Your task to perform on an android device: turn on improve location accuracy Image 0: 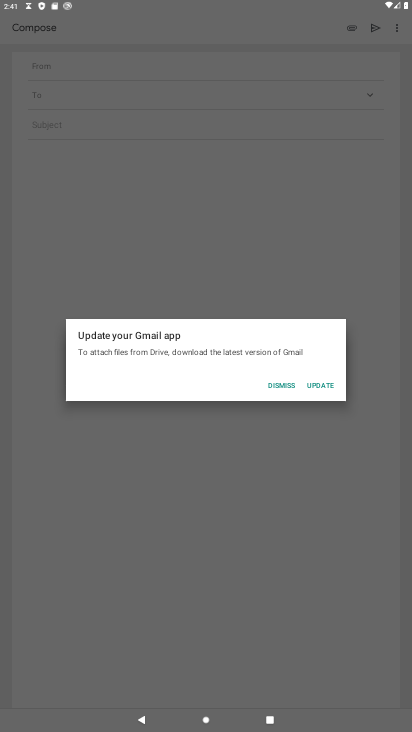
Step 0: press home button
Your task to perform on an android device: turn on improve location accuracy Image 1: 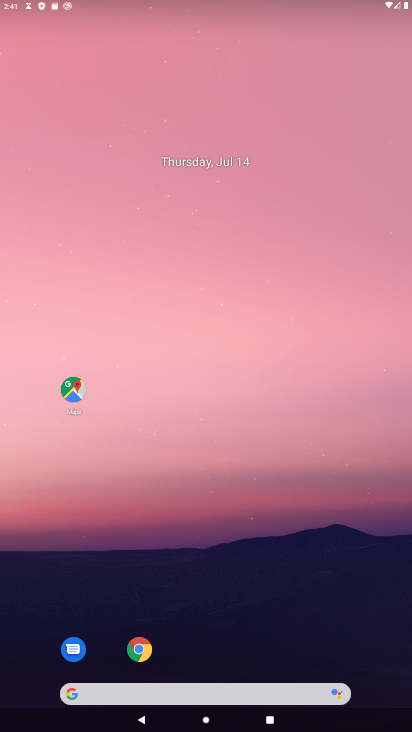
Step 1: drag from (225, 643) to (272, 33)
Your task to perform on an android device: turn on improve location accuracy Image 2: 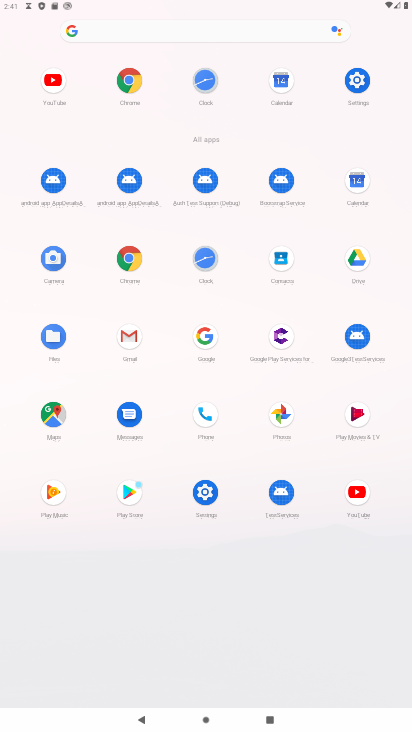
Step 2: click (202, 504)
Your task to perform on an android device: turn on improve location accuracy Image 3: 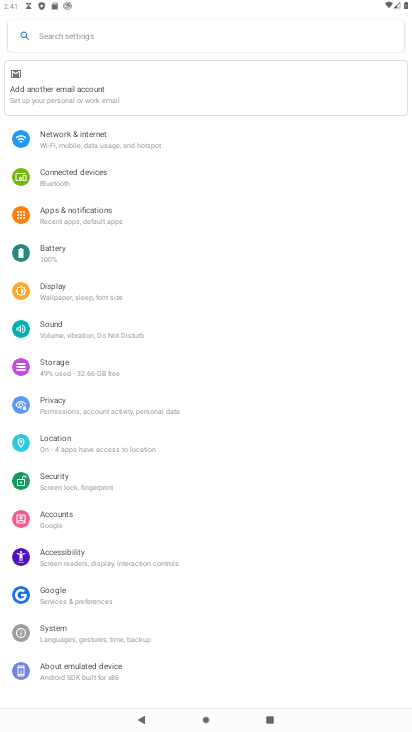
Step 3: click (83, 444)
Your task to perform on an android device: turn on improve location accuracy Image 4: 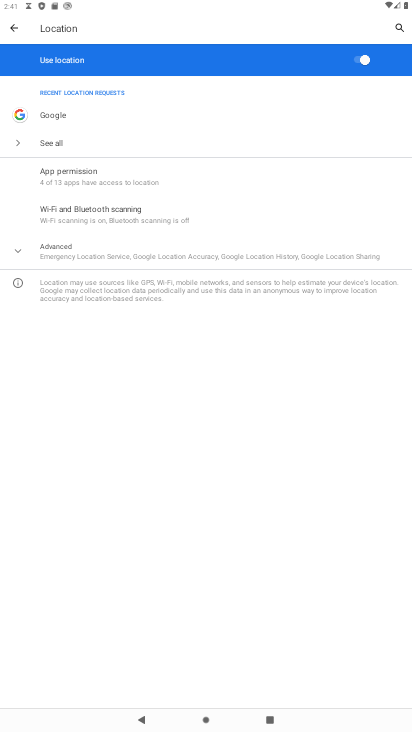
Step 4: click (138, 256)
Your task to perform on an android device: turn on improve location accuracy Image 5: 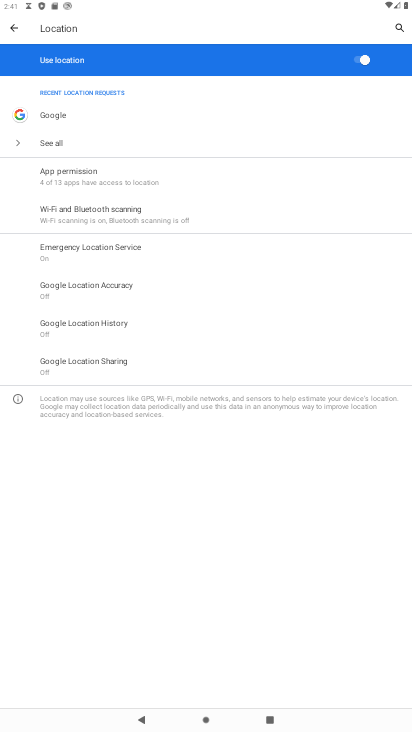
Step 5: click (108, 287)
Your task to perform on an android device: turn on improve location accuracy Image 6: 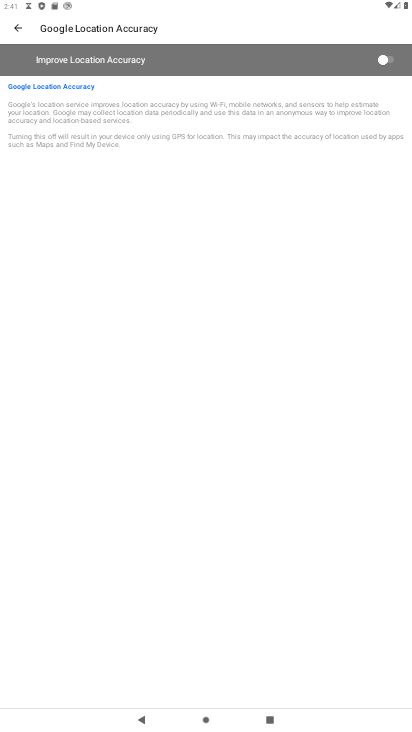
Step 6: click (333, 63)
Your task to perform on an android device: turn on improve location accuracy Image 7: 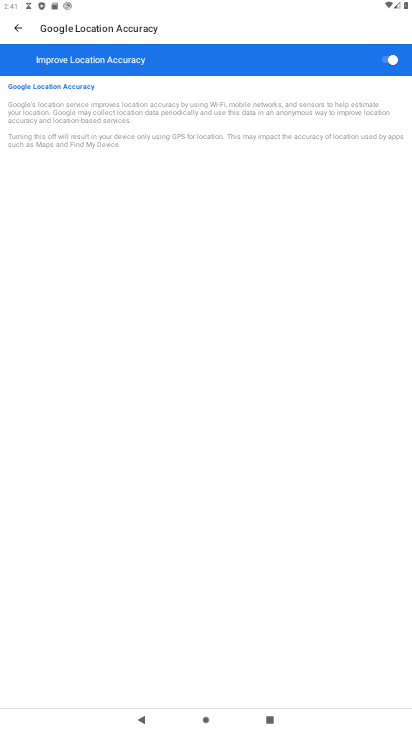
Step 7: task complete